Your task to perform on an android device: Open ESPN.com Image 0: 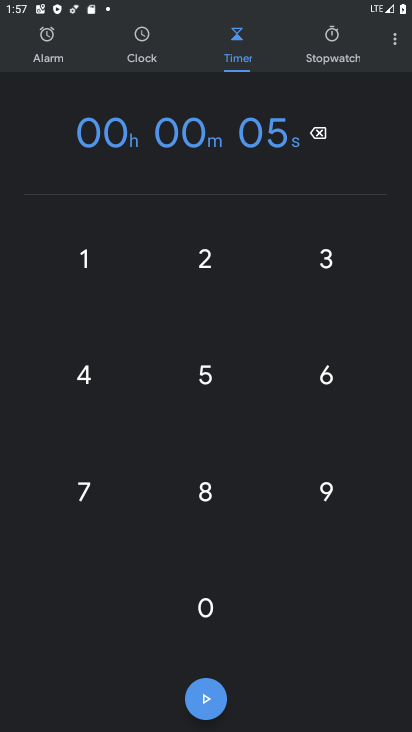
Step 0: press home button
Your task to perform on an android device: Open ESPN.com Image 1: 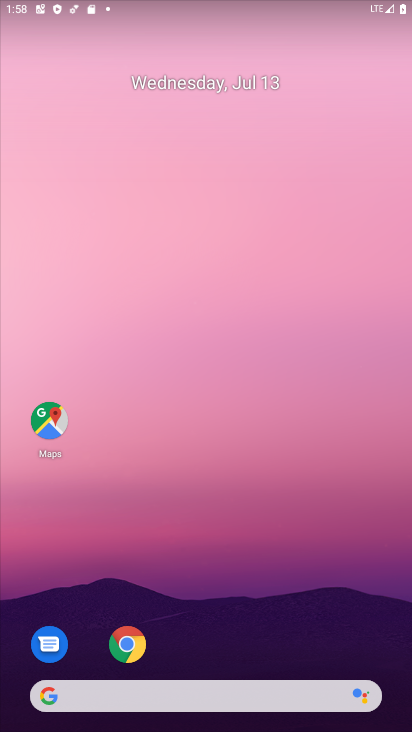
Step 1: drag from (287, 689) to (297, 87)
Your task to perform on an android device: Open ESPN.com Image 2: 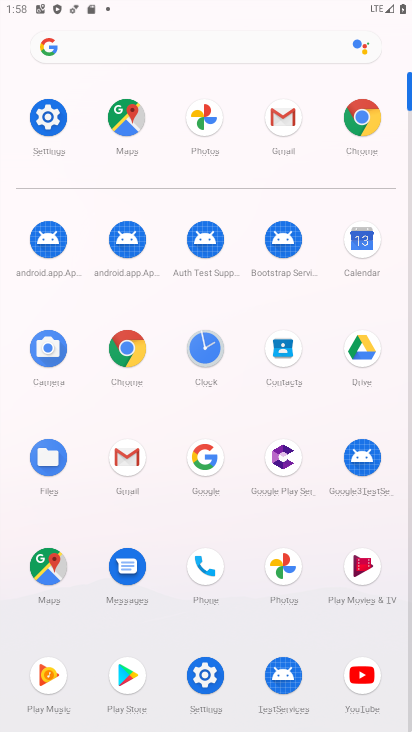
Step 2: click (362, 116)
Your task to perform on an android device: Open ESPN.com Image 3: 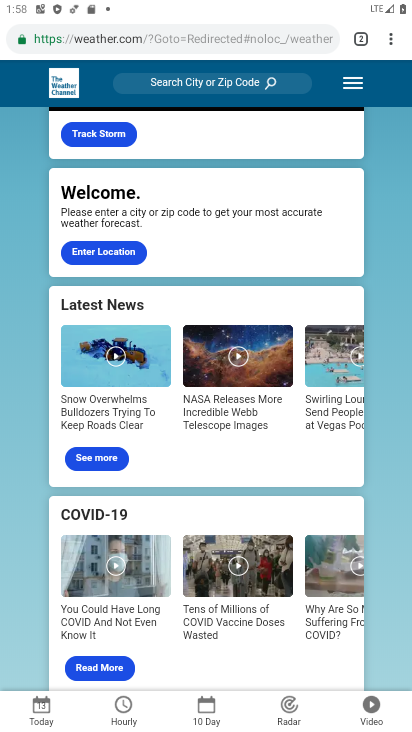
Step 3: click (172, 42)
Your task to perform on an android device: Open ESPN.com Image 4: 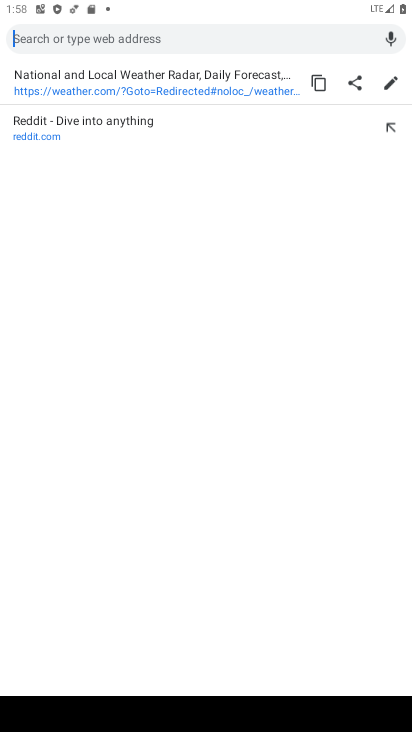
Step 4: type "espn.com"
Your task to perform on an android device: Open ESPN.com Image 5: 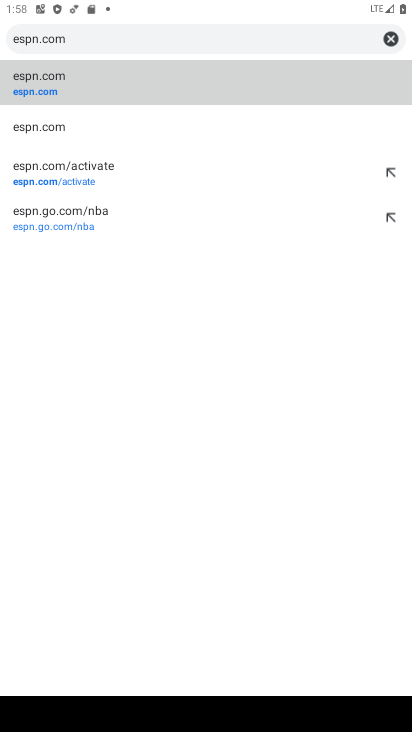
Step 5: click (26, 95)
Your task to perform on an android device: Open ESPN.com Image 6: 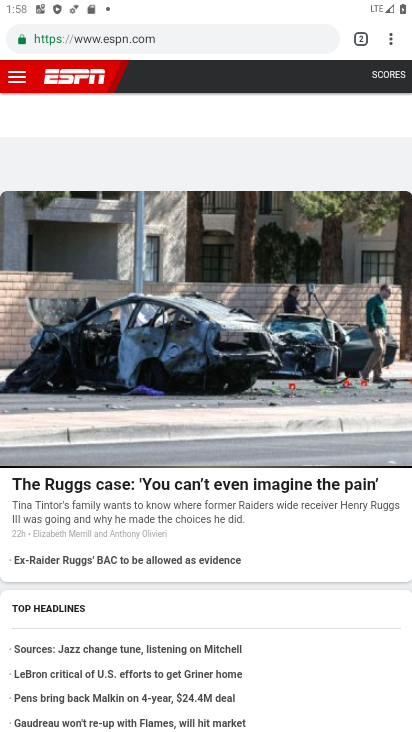
Step 6: task complete